Your task to perform on an android device: Show me recent news Image 0: 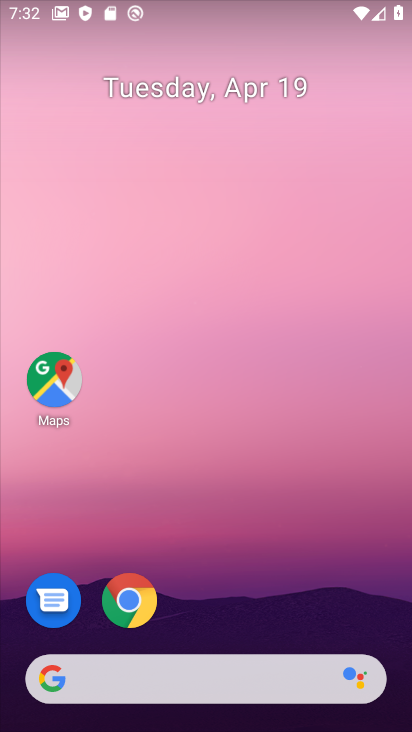
Step 0: drag from (305, 616) to (225, 143)
Your task to perform on an android device: Show me recent news Image 1: 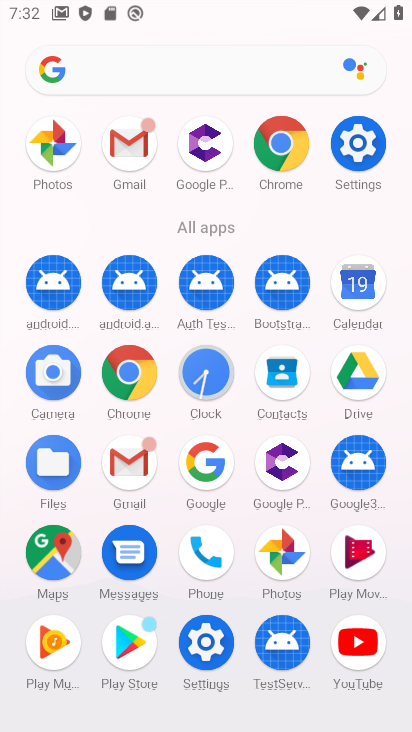
Step 1: click (268, 142)
Your task to perform on an android device: Show me recent news Image 2: 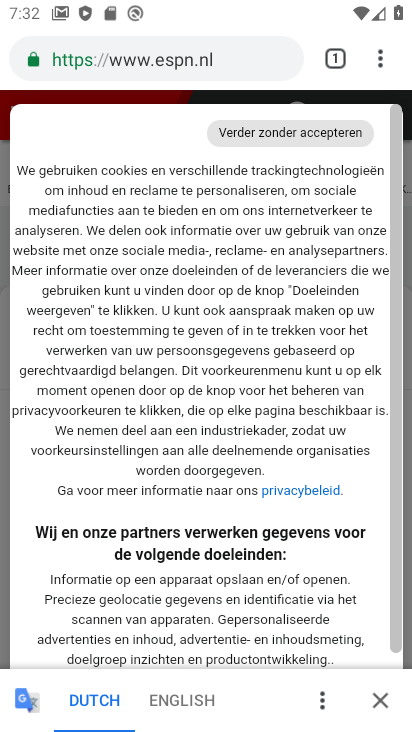
Step 2: press back button
Your task to perform on an android device: Show me recent news Image 3: 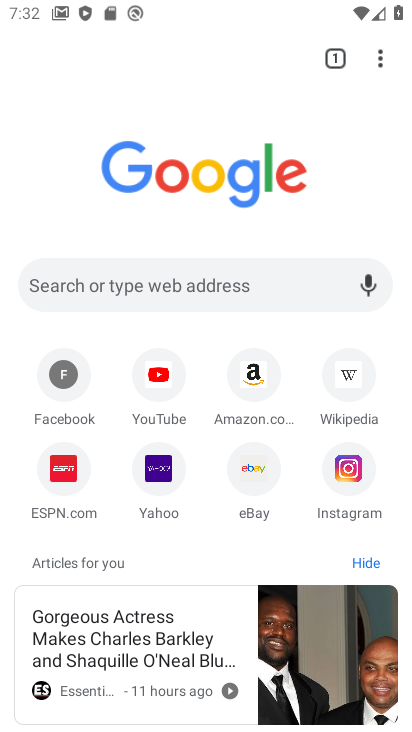
Step 3: click (136, 598)
Your task to perform on an android device: Show me recent news Image 4: 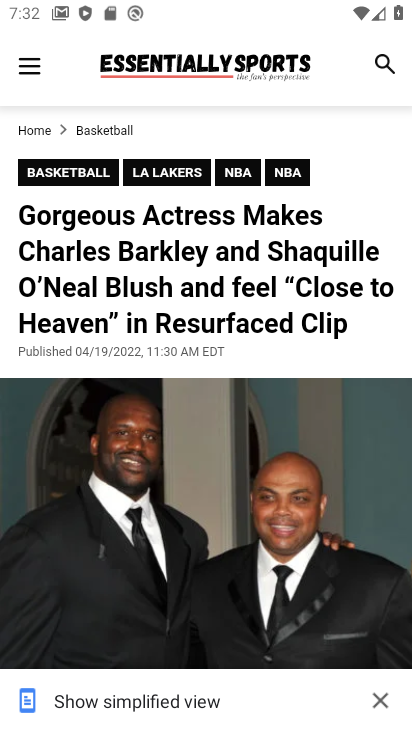
Step 4: task complete